Your task to perform on an android device: check storage Image 0: 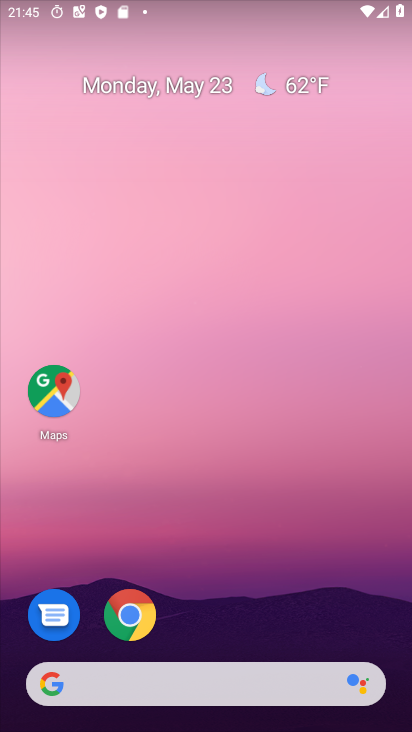
Step 0: drag from (236, 609) to (238, 92)
Your task to perform on an android device: check storage Image 1: 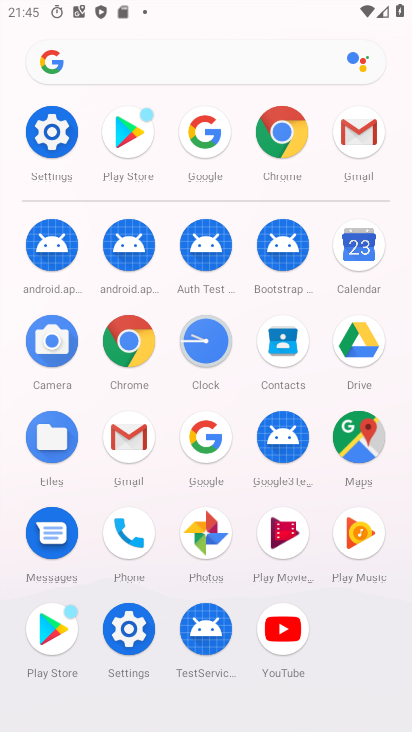
Step 1: click (56, 130)
Your task to perform on an android device: check storage Image 2: 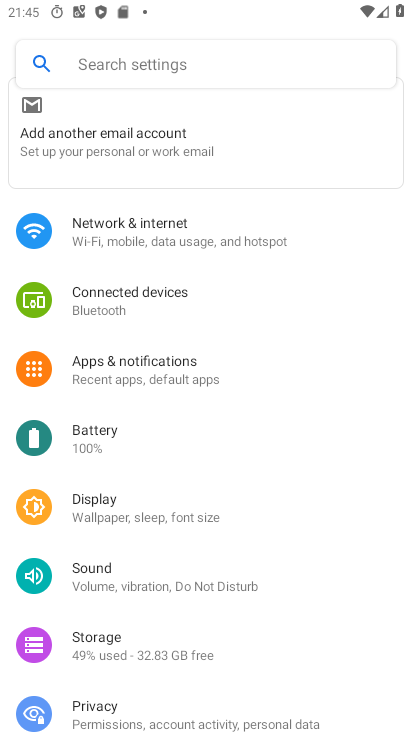
Step 2: click (154, 654)
Your task to perform on an android device: check storage Image 3: 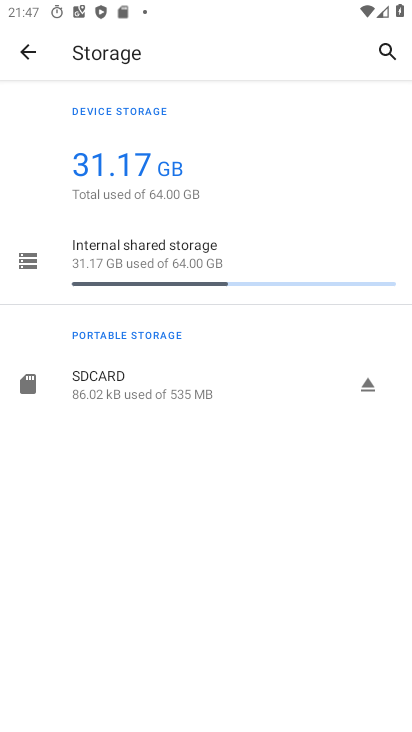
Step 3: task complete